Your task to perform on an android device: Open Android settings Image 0: 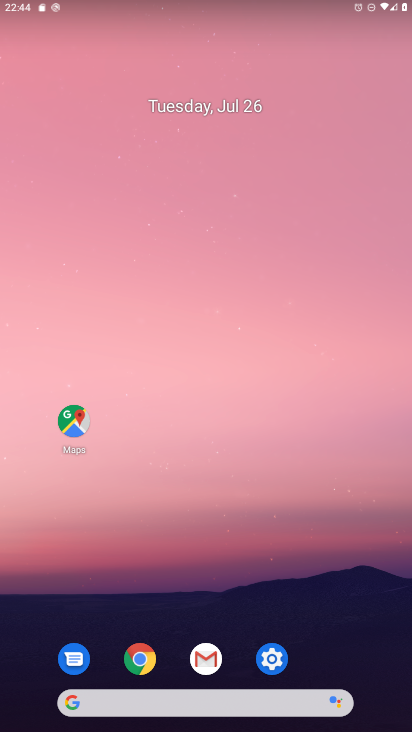
Step 0: click (268, 666)
Your task to perform on an android device: Open Android settings Image 1: 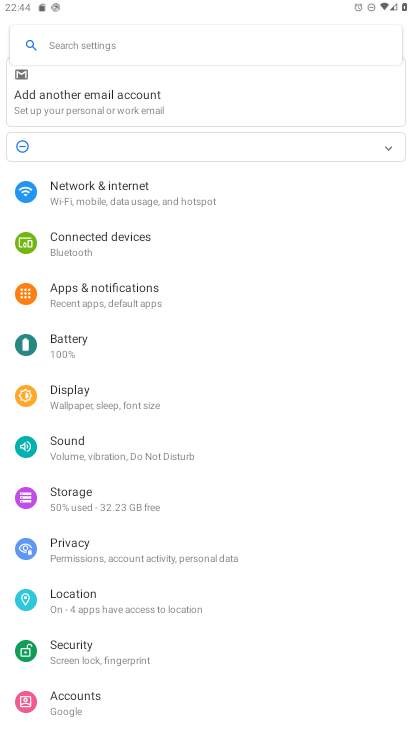
Step 1: click (97, 38)
Your task to perform on an android device: Open Android settings Image 2: 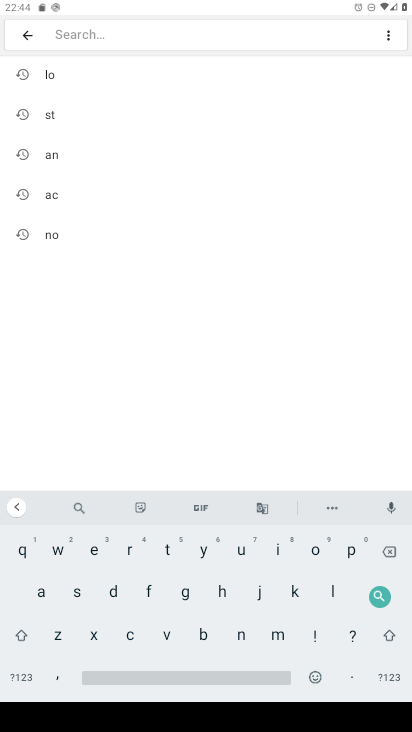
Step 2: click (36, 588)
Your task to perform on an android device: Open Android settings Image 3: 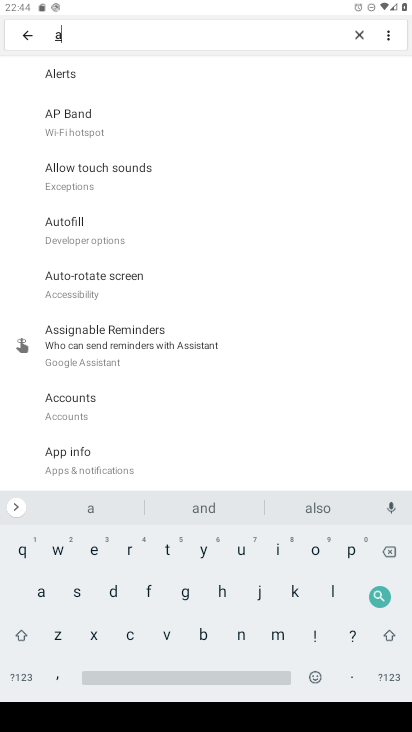
Step 3: click (236, 631)
Your task to perform on an android device: Open Android settings Image 4: 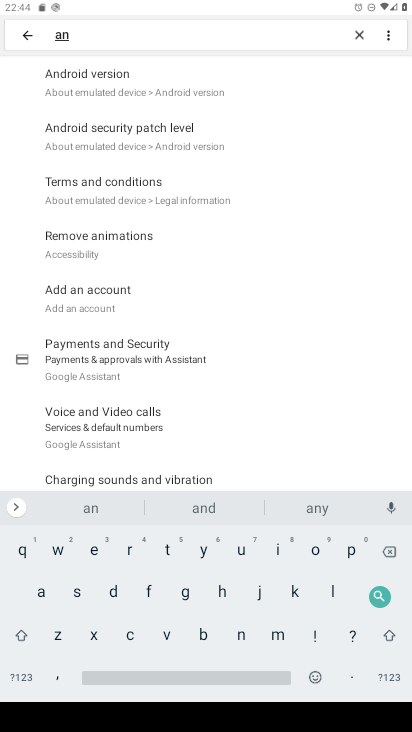
Step 4: click (126, 66)
Your task to perform on an android device: Open Android settings Image 5: 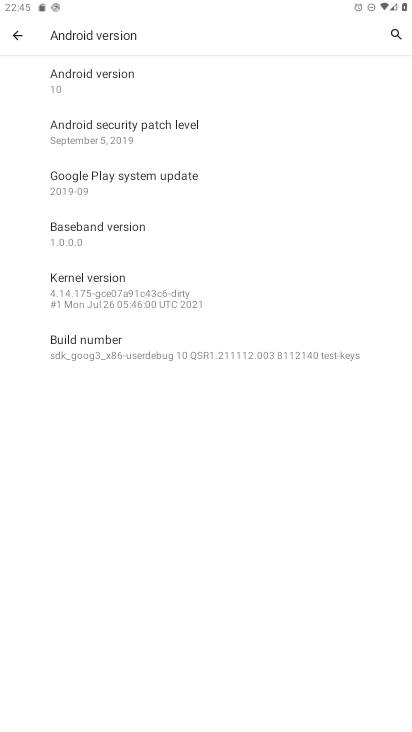
Step 5: click (127, 66)
Your task to perform on an android device: Open Android settings Image 6: 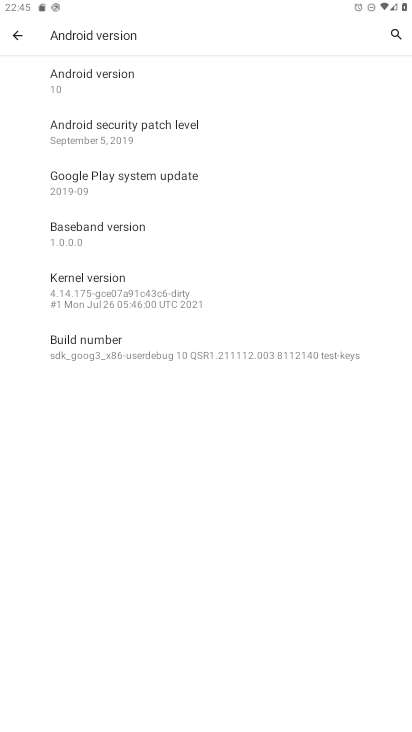
Step 6: task complete